Your task to perform on an android device: turn off airplane mode Image 0: 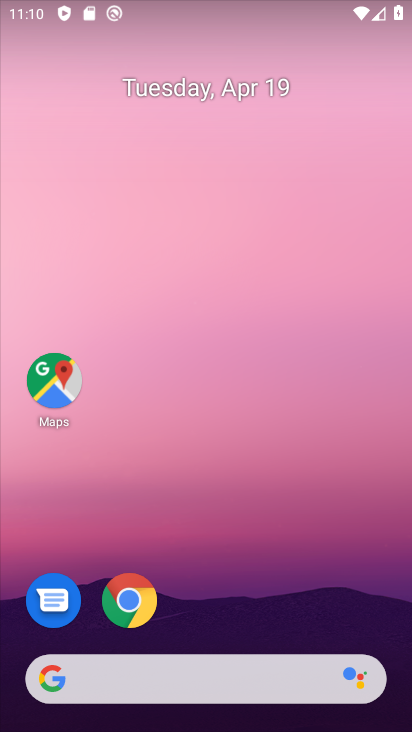
Step 0: drag from (338, 437) to (311, 4)
Your task to perform on an android device: turn off airplane mode Image 1: 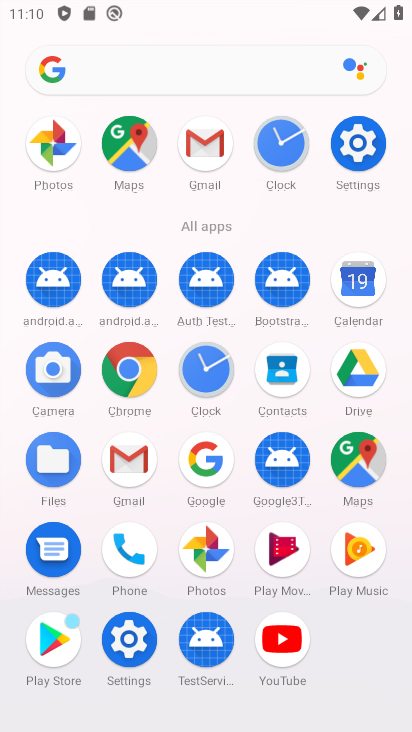
Step 1: click (358, 154)
Your task to perform on an android device: turn off airplane mode Image 2: 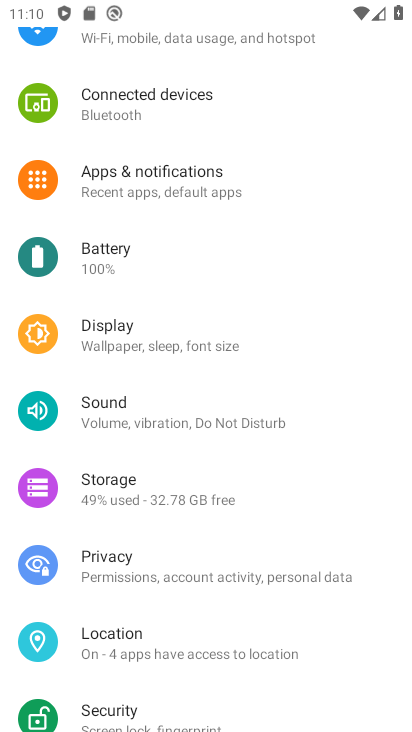
Step 2: drag from (362, 208) to (368, 522)
Your task to perform on an android device: turn off airplane mode Image 3: 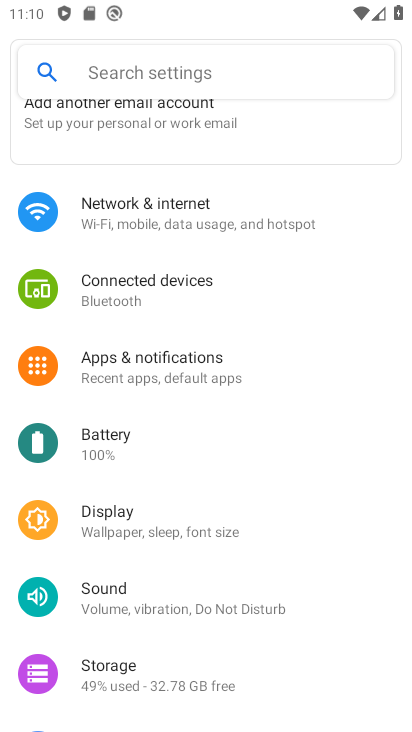
Step 3: click (127, 217)
Your task to perform on an android device: turn off airplane mode Image 4: 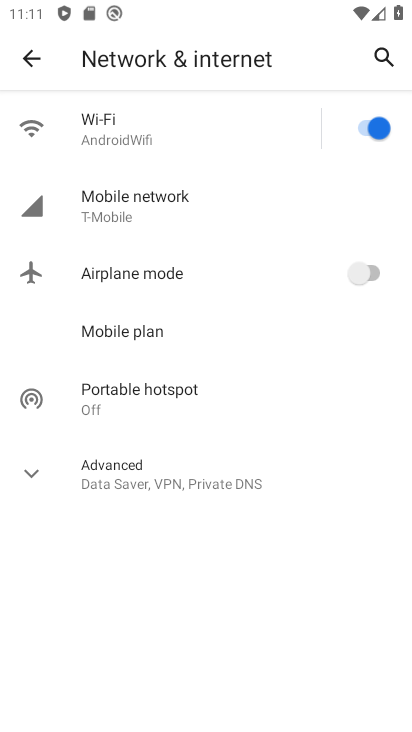
Step 4: task complete